Your task to perform on an android device: Search for seafood restaurants on Google Maps Image 0: 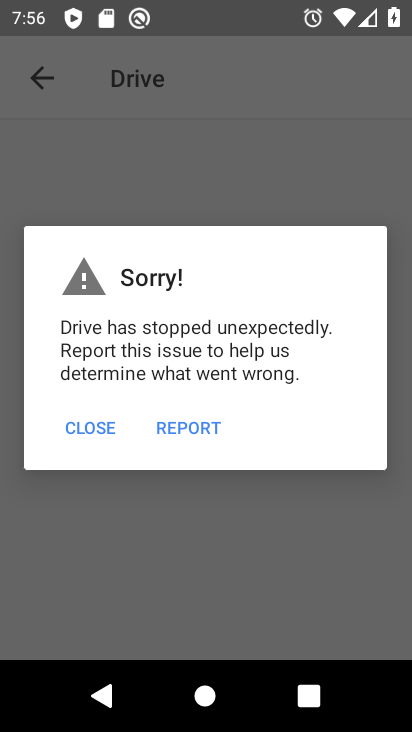
Step 0: press back button
Your task to perform on an android device: Search for seafood restaurants on Google Maps Image 1: 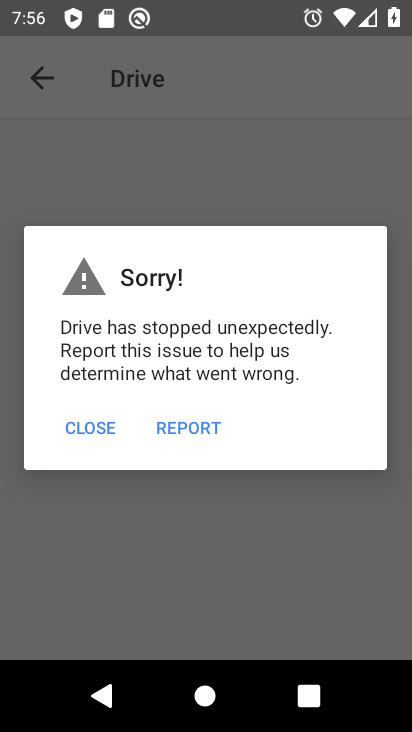
Step 1: press home button
Your task to perform on an android device: Search for seafood restaurants on Google Maps Image 2: 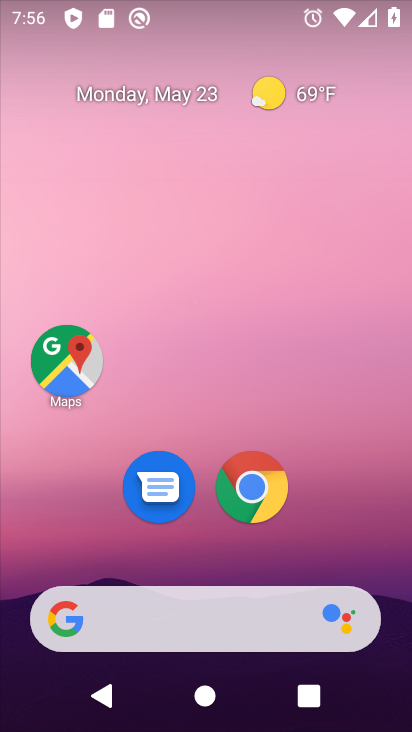
Step 2: click (62, 352)
Your task to perform on an android device: Search for seafood restaurants on Google Maps Image 3: 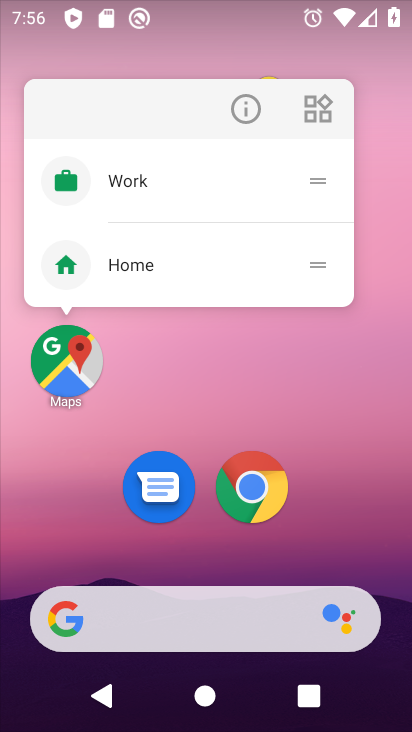
Step 3: click (60, 358)
Your task to perform on an android device: Search for seafood restaurants on Google Maps Image 4: 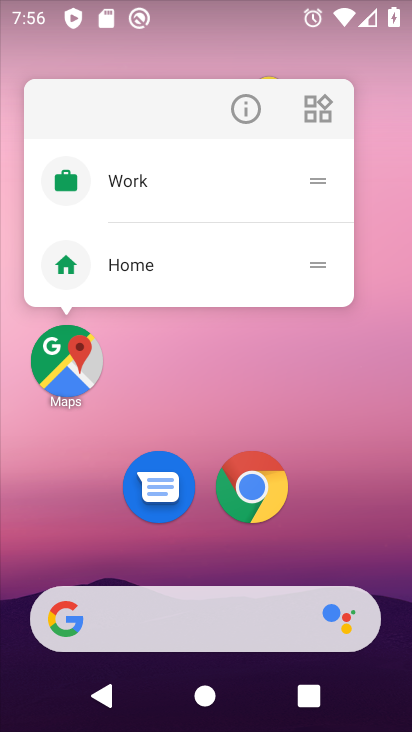
Step 4: click (60, 358)
Your task to perform on an android device: Search for seafood restaurants on Google Maps Image 5: 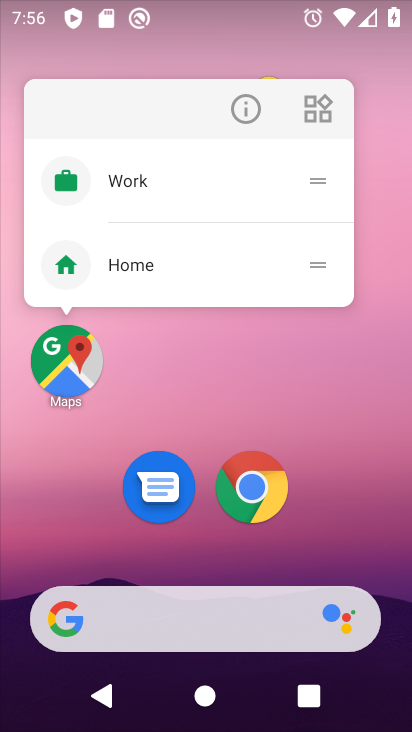
Step 5: task complete